Your task to perform on an android device: When is my next appointment? Image 0: 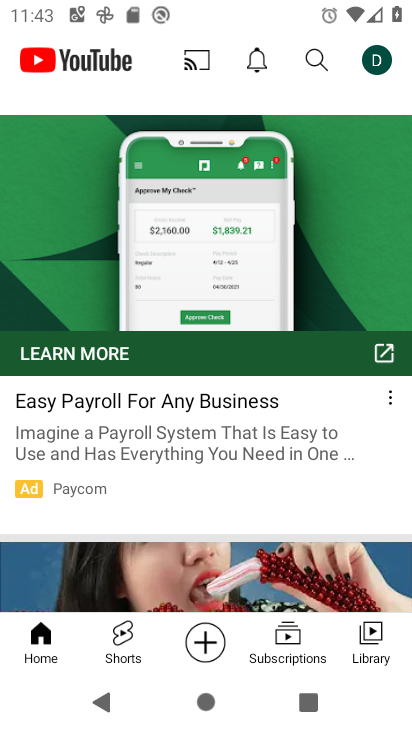
Step 0: press home button
Your task to perform on an android device: When is my next appointment? Image 1: 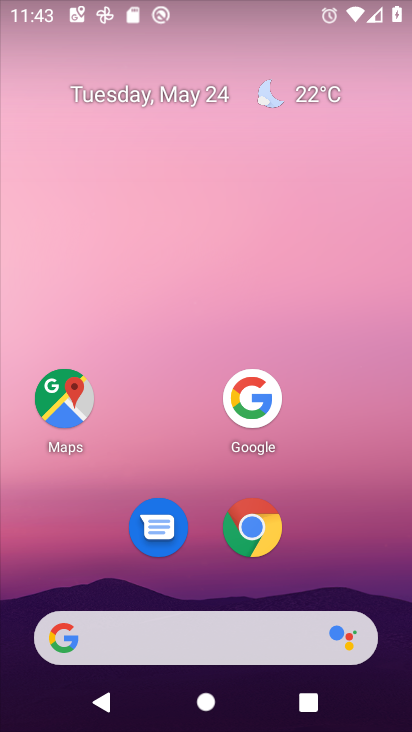
Step 1: drag from (170, 637) to (201, 239)
Your task to perform on an android device: When is my next appointment? Image 2: 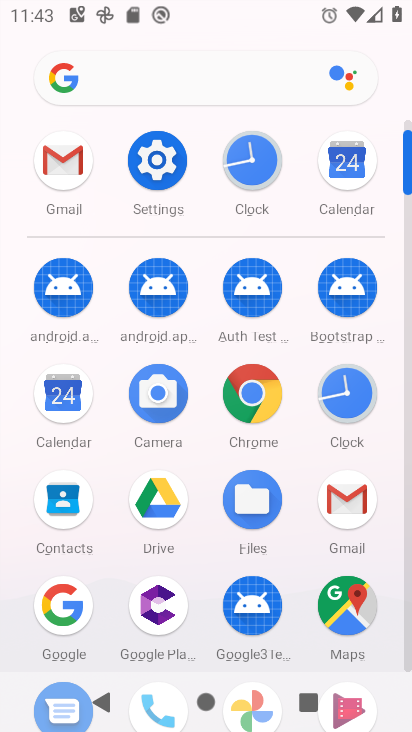
Step 2: click (64, 393)
Your task to perform on an android device: When is my next appointment? Image 3: 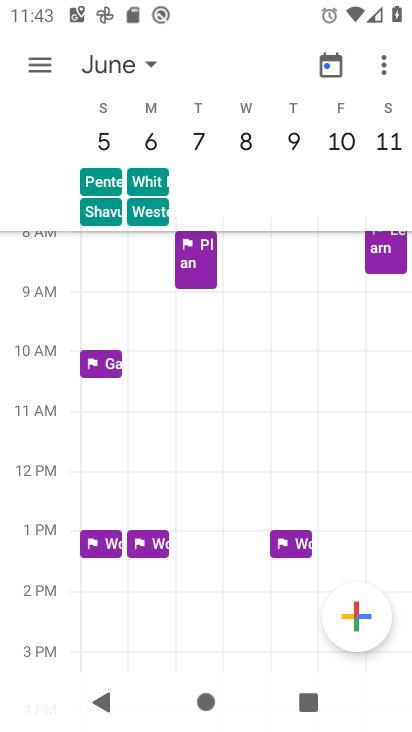
Step 3: task complete